Your task to perform on an android device: turn on notifications settings in the gmail app Image 0: 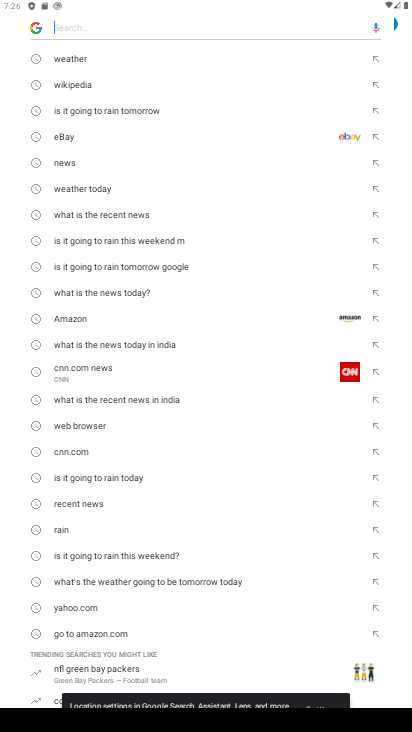
Step 0: press home button
Your task to perform on an android device: turn on notifications settings in the gmail app Image 1: 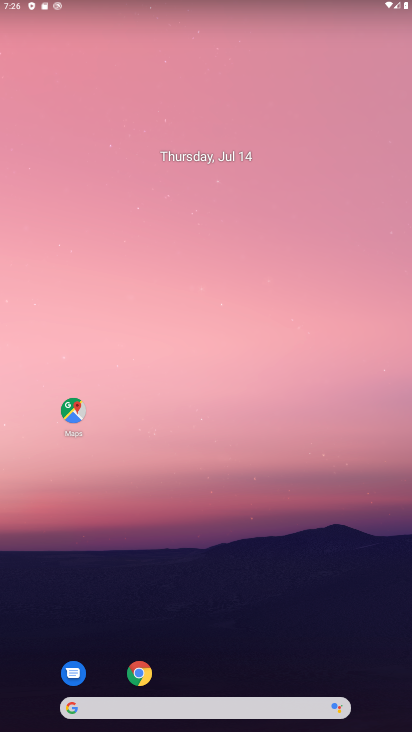
Step 1: drag from (359, 662) to (348, 227)
Your task to perform on an android device: turn on notifications settings in the gmail app Image 2: 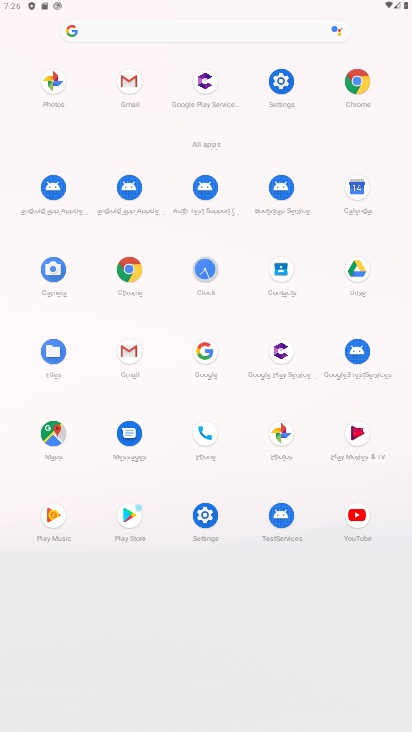
Step 2: click (127, 356)
Your task to perform on an android device: turn on notifications settings in the gmail app Image 3: 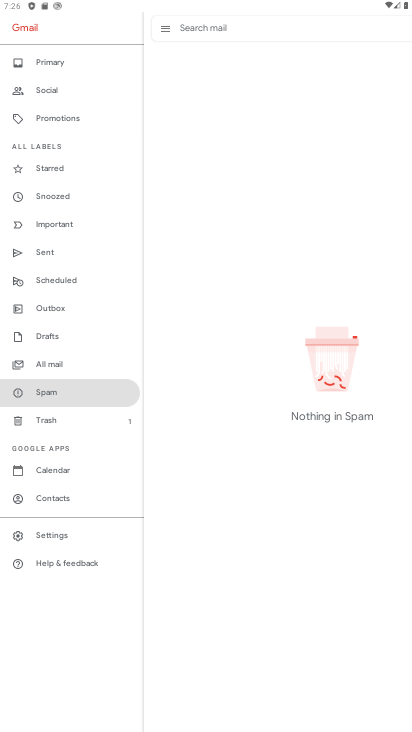
Step 3: click (52, 534)
Your task to perform on an android device: turn on notifications settings in the gmail app Image 4: 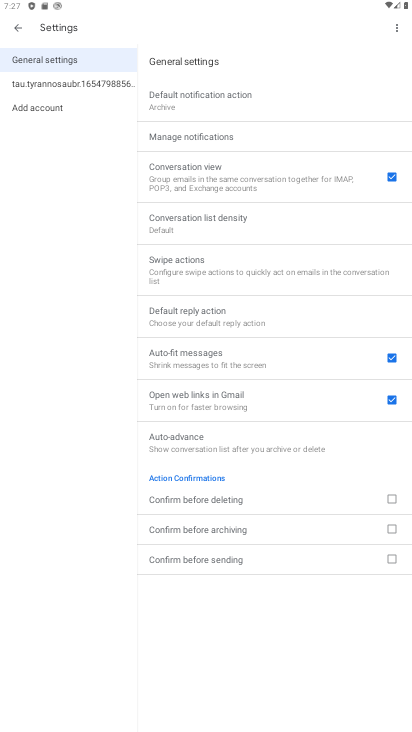
Step 4: click (262, 132)
Your task to perform on an android device: turn on notifications settings in the gmail app Image 5: 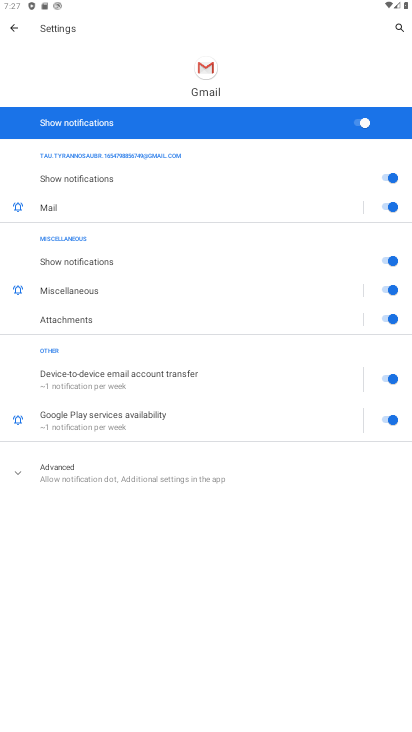
Step 5: task complete